Your task to perform on an android device: toggle data saver in the chrome app Image 0: 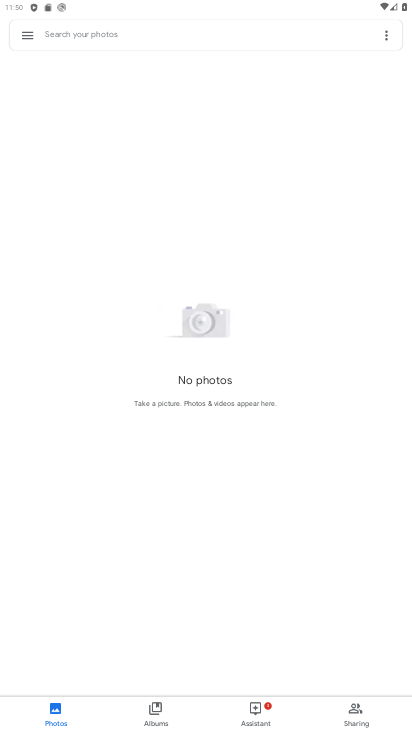
Step 0: press home button
Your task to perform on an android device: toggle data saver in the chrome app Image 1: 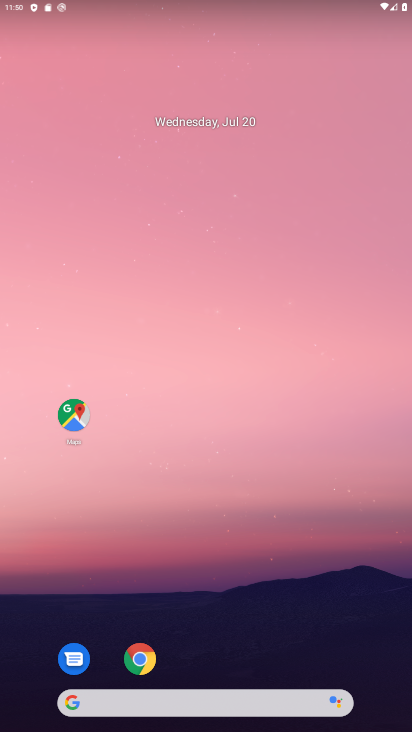
Step 1: drag from (301, 578) to (305, 26)
Your task to perform on an android device: toggle data saver in the chrome app Image 2: 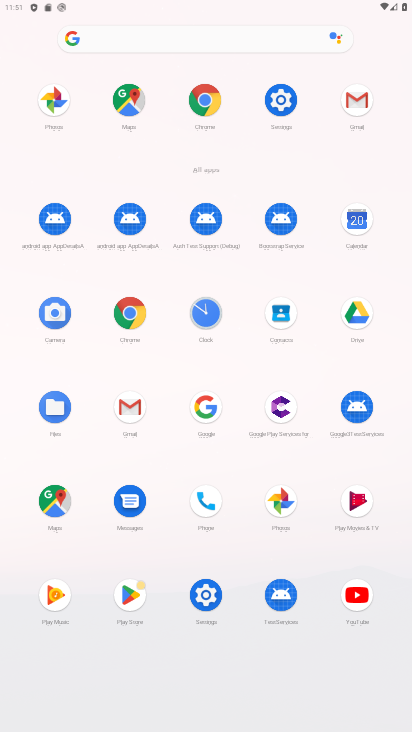
Step 2: click (129, 310)
Your task to perform on an android device: toggle data saver in the chrome app Image 3: 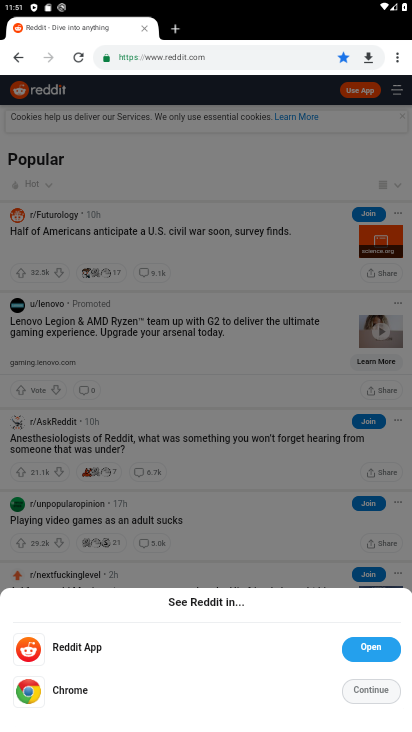
Step 3: drag from (397, 56) to (284, 376)
Your task to perform on an android device: toggle data saver in the chrome app Image 4: 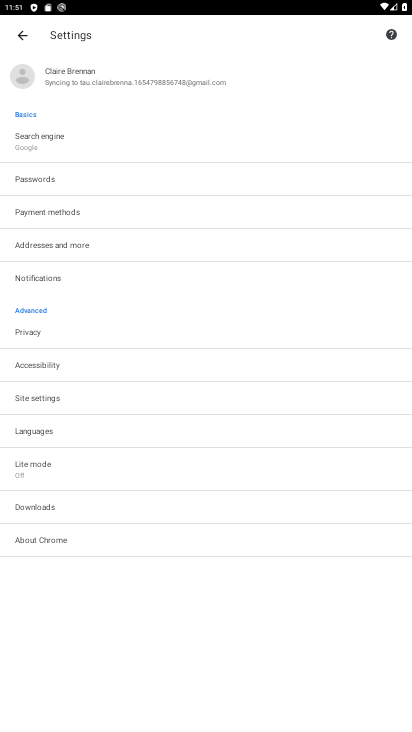
Step 4: click (32, 468)
Your task to perform on an android device: toggle data saver in the chrome app Image 5: 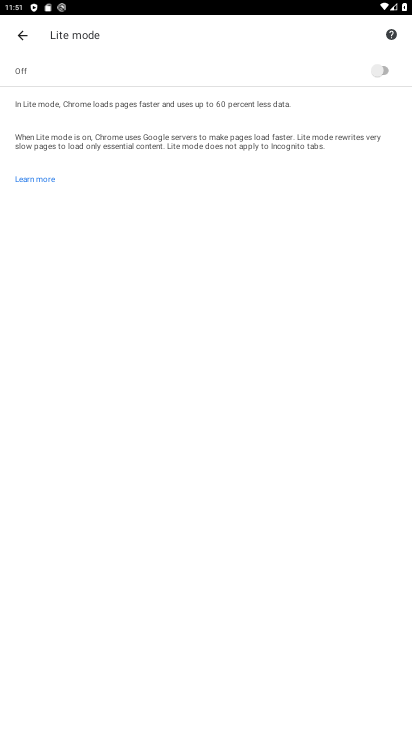
Step 5: click (386, 68)
Your task to perform on an android device: toggle data saver in the chrome app Image 6: 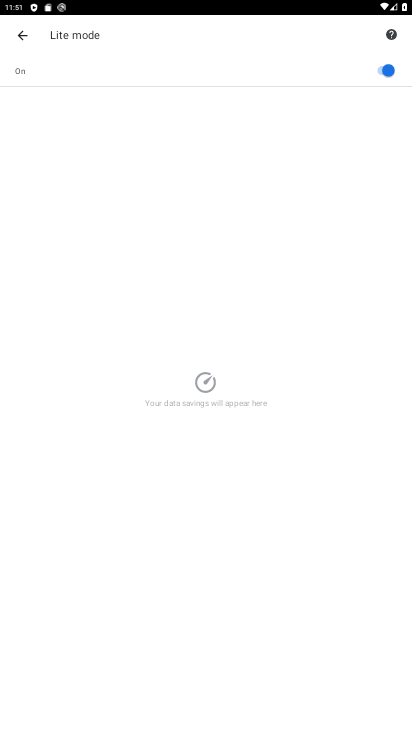
Step 6: task complete